Your task to perform on an android device: delete browsing data in the chrome app Image 0: 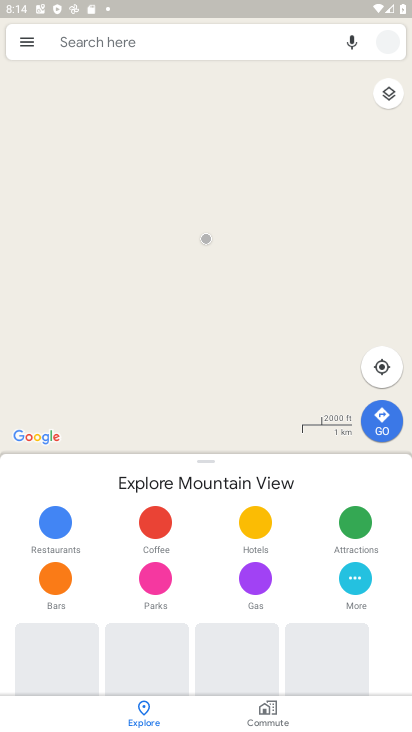
Step 0: press home button
Your task to perform on an android device: delete browsing data in the chrome app Image 1: 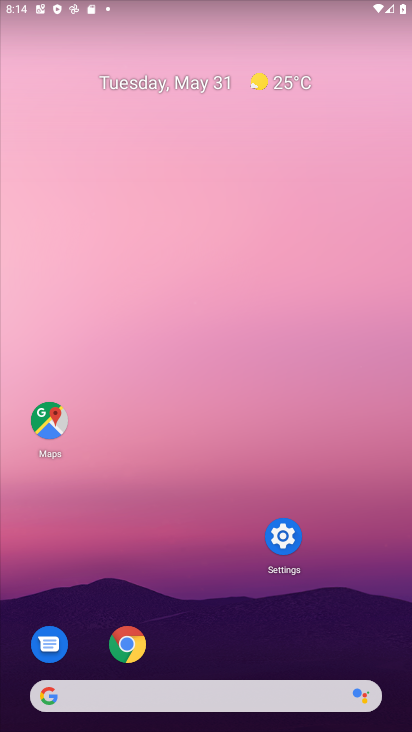
Step 1: drag from (268, 711) to (275, 471)
Your task to perform on an android device: delete browsing data in the chrome app Image 2: 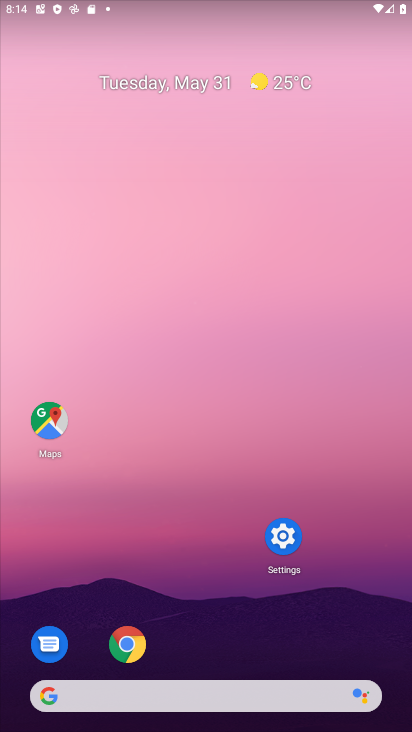
Step 2: drag from (206, 703) to (222, 492)
Your task to perform on an android device: delete browsing data in the chrome app Image 3: 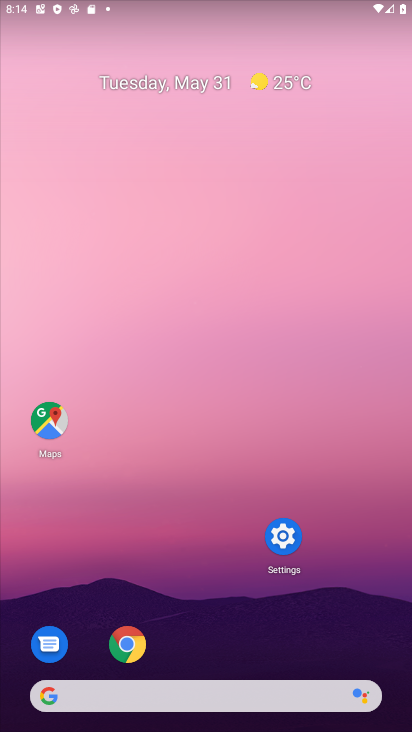
Step 3: click (126, 633)
Your task to perform on an android device: delete browsing data in the chrome app Image 4: 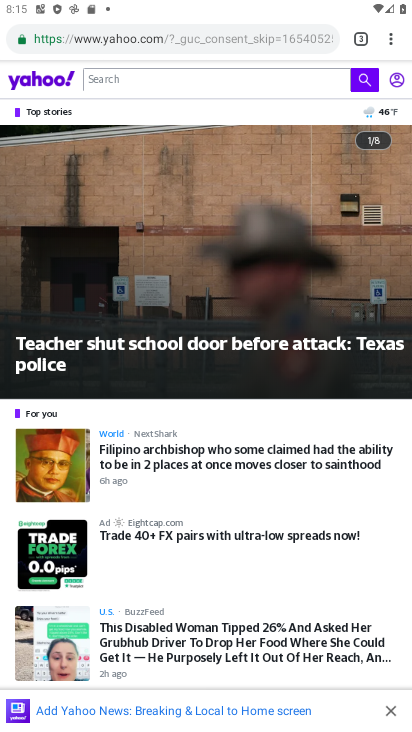
Step 4: click (387, 40)
Your task to perform on an android device: delete browsing data in the chrome app Image 5: 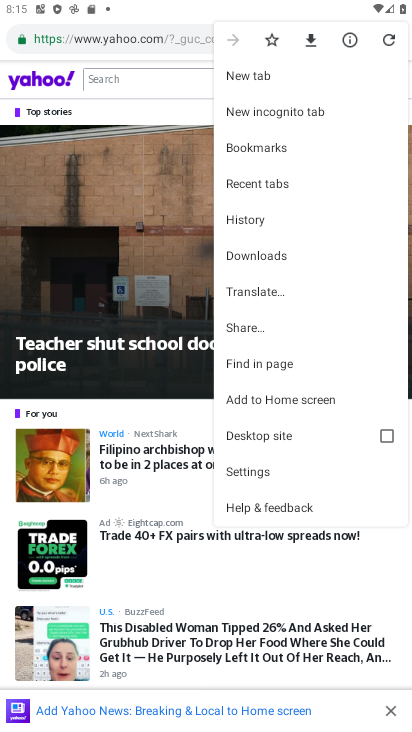
Step 5: drag from (248, 468) to (264, 365)
Your task to perform on an android device: delete browsing data in the chrome app Image 6: 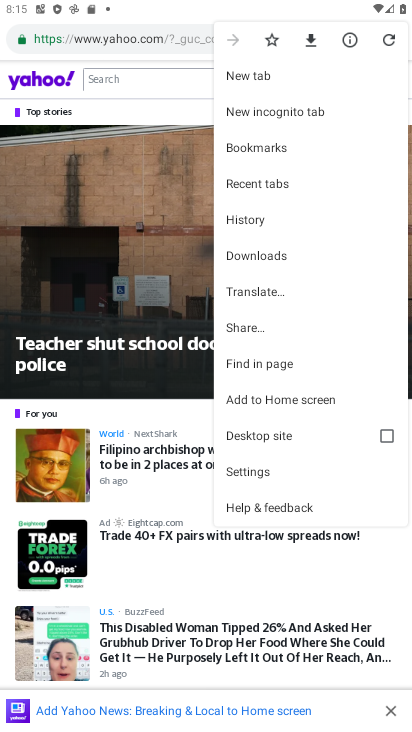
Step 6: click (255, 205)
Your task to perform on an android device: delete browsing data in the chrome app Image 7: 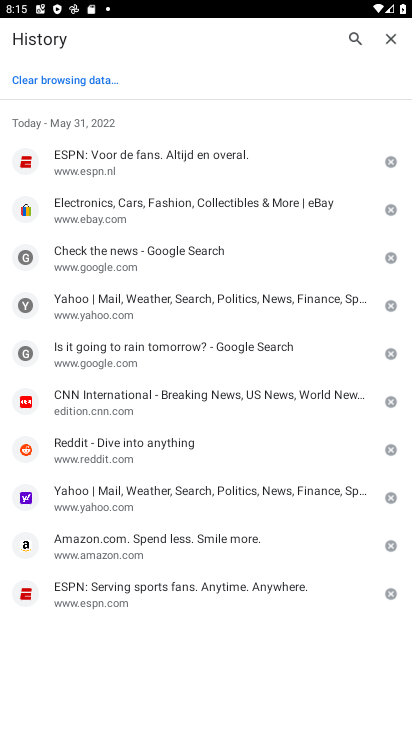
Step 7: click (71, 83)
Your task to perform on an android device: delete browsing data in the chrome app Image 8: 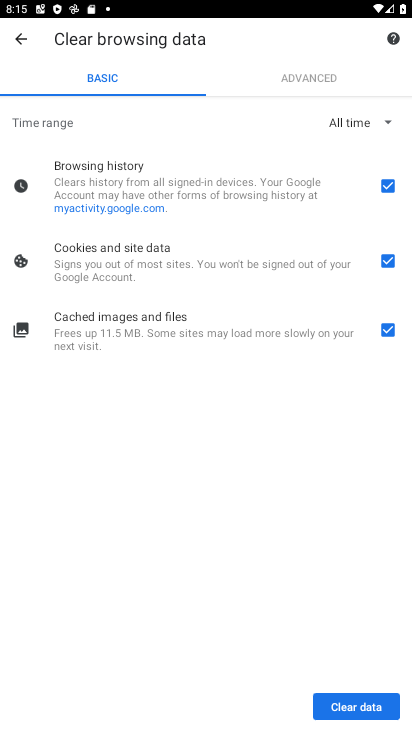
Step 8: click (341, 707)
Your task to perform on an android device: delete browsing data in the chrome app Image 9: 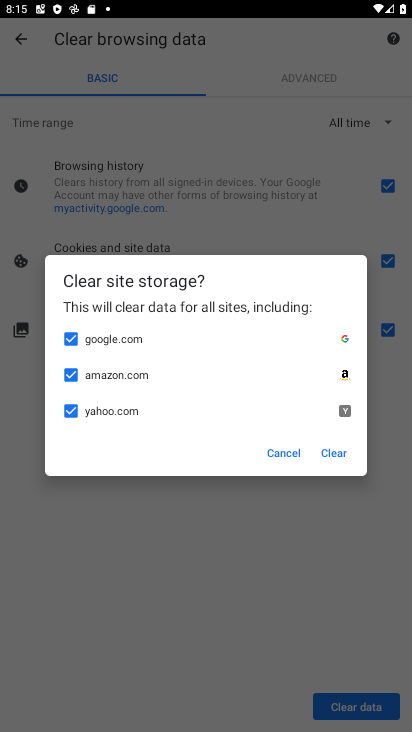
Step 9: task complete